Your task to perform on an android device: read, delete, or share a saved page in the chrome app Image 0: 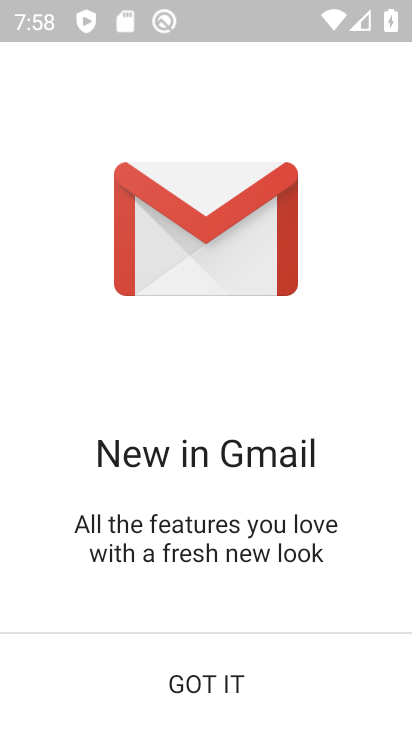
Step 0: click (192, 697)
Your task to perform on an android device: read, delete, or share a saved page in the chrome app Image 1: 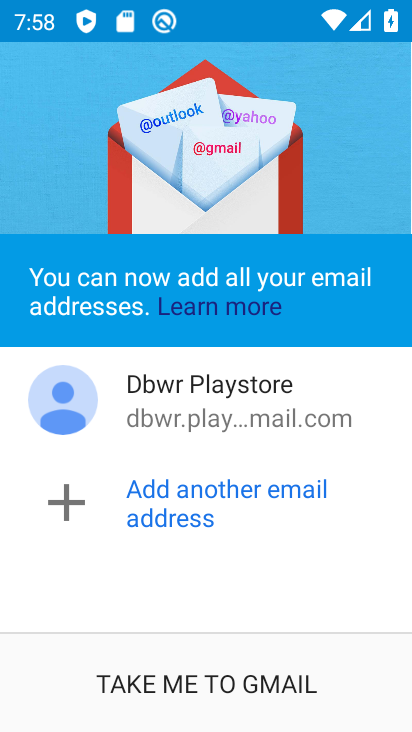
Step 1: click (254, 672)
Your task to perform on an android device: read, delete, or share a saved page in the chrome app Image 2: 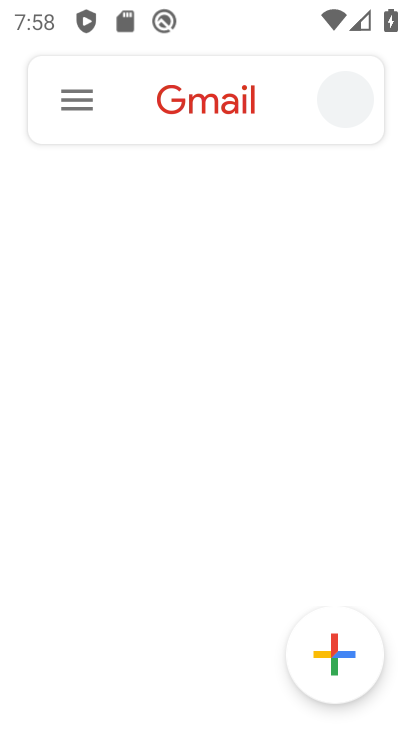
Step 2: press home button
Your task to perform on an android device: read, delete, or share a saved page in the chrome app Image 3: 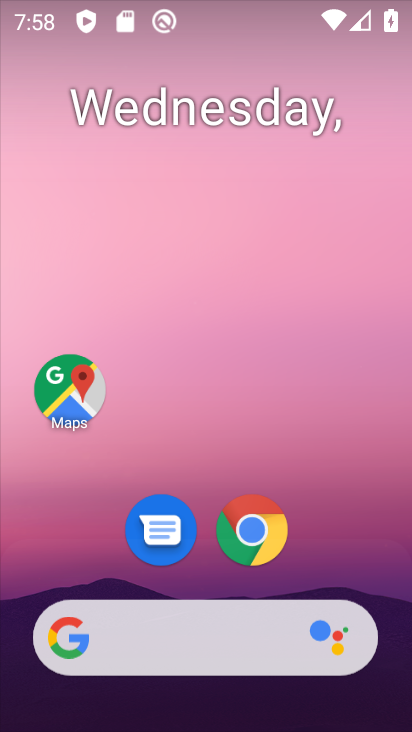
Step 3: click (264, 550)
Your task to perform on an android device: read, delete, or share a saved page in the chrome app Image 4: 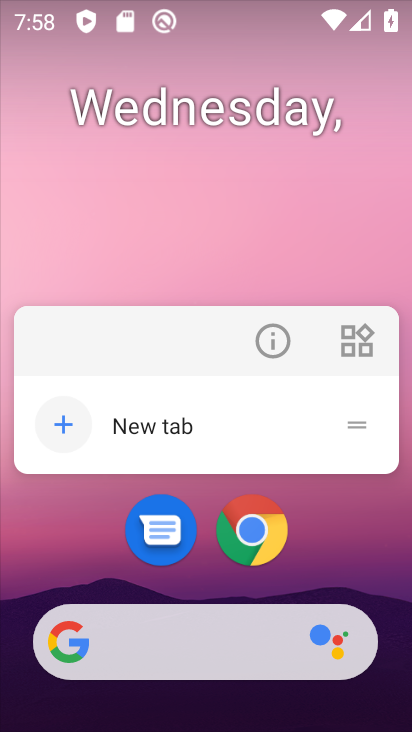
Step 4: click (264, 516)
Your task to perform on an android device: read, delete, or share a saved page in the chrome app Image 5: 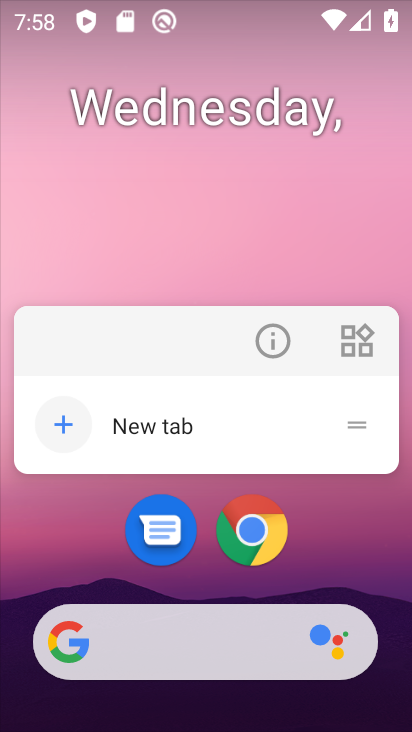
Step 5: click (269, 528)
Your task to perform on an android device: read, delete, or share a saved page in the chrome app Image 6: 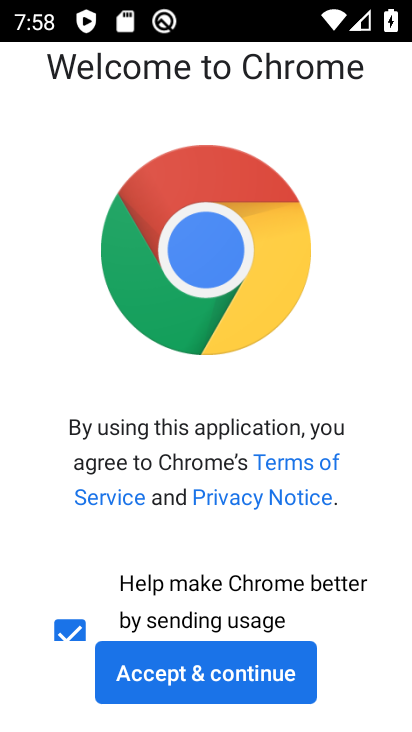
Step 6: click (213, 666)
Your task to perform on an android device: read, delete, or share a saved page in the chrome app Image 7: 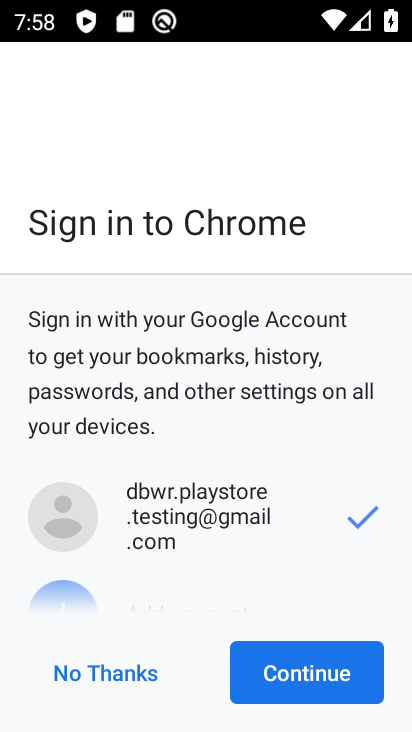
Step 7: click (263, 689)
Your task to perform on an android device: read, delete, or share a saved page in the chrome app Image 8: 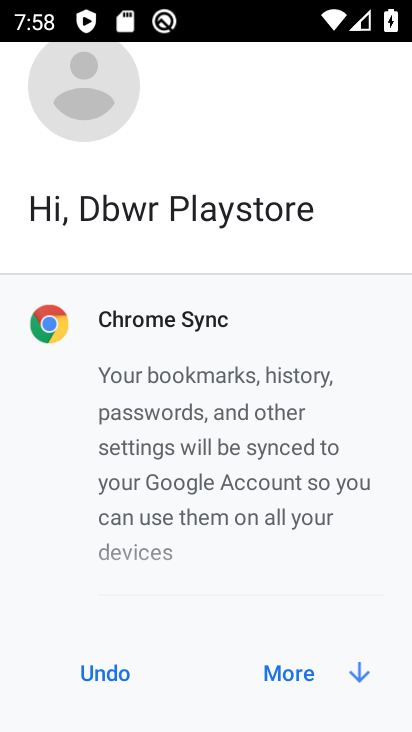
Step 8: click (276, 657)
Your task to perform on an android device: read, delete, or share a saved page in the chrome app Image 9: 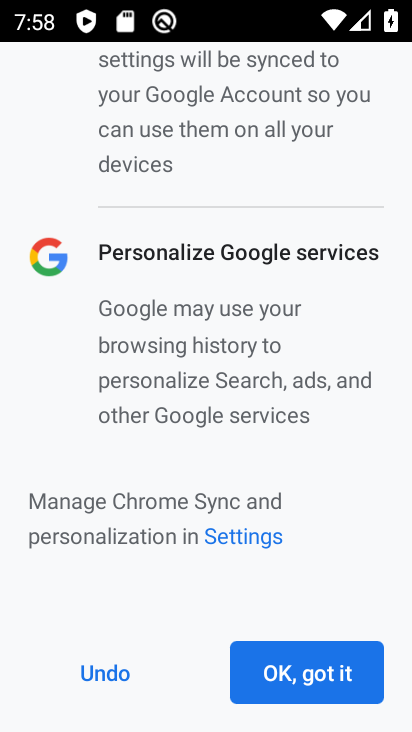
Step 9: click (277, 657)
Your task to perform on an android device: read, delete, or share a saved page in the chrome app Image 10: 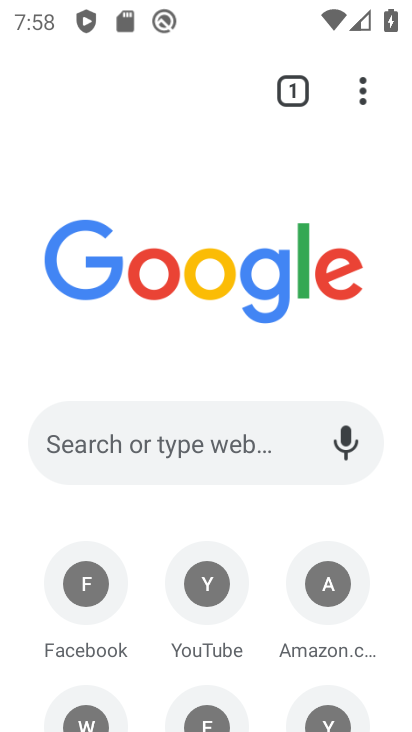
Step 10: click (364, 92)
Your task to perform on an android device: read, delete, or share a saved page in the chrome app Image 11: 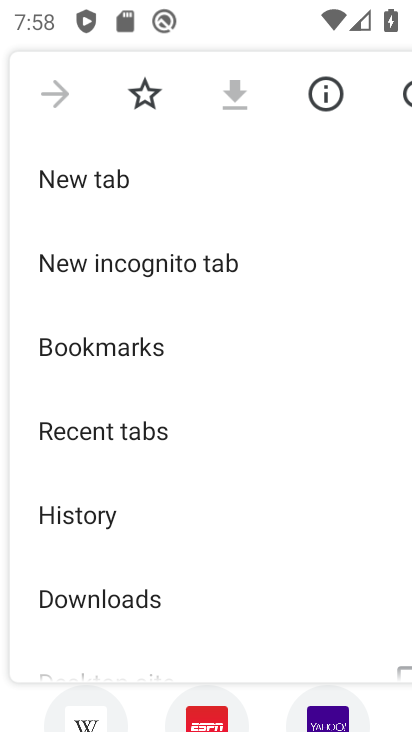
Step 11: drag from (281, 463) to (338, 155)
Your task to perform on an android device: read, delete, or share a saved page in the chrome app Image 12: 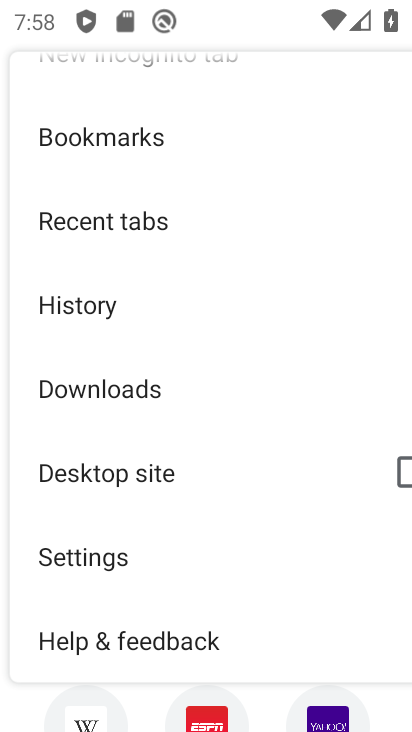
Step 12: click (222, 381)
Your task to perform on an android device: read, delete, or share a saved page in the chrome app Image 13: 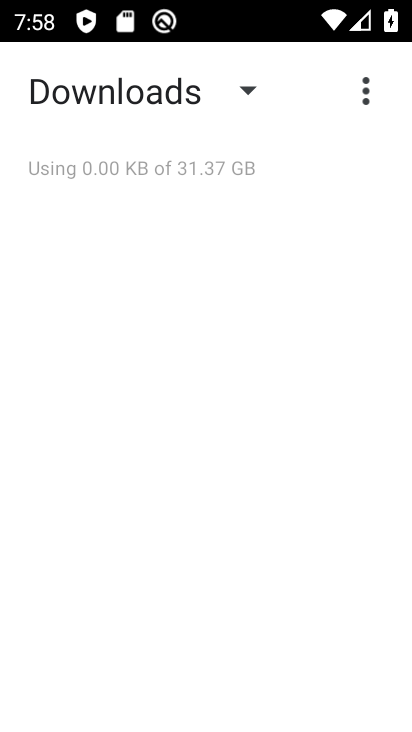
Step 13: task complete